Your task to perform on an android device: Search for razer kraken on target, select the first entry, add it to the cart, then select checkout. Image 0: 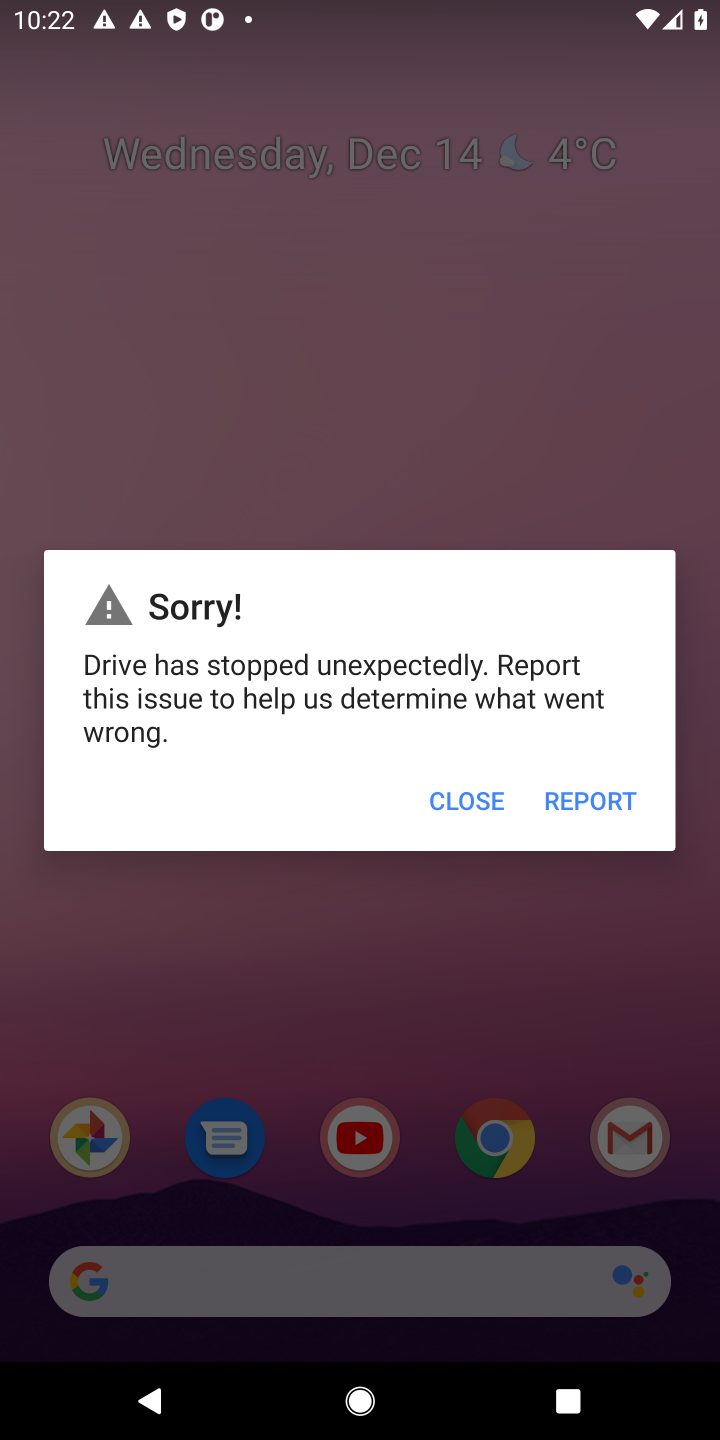
Step 0: press home button
Your task to perform on an android device: Search for razer kraken on target, select the first entry, add it to the cart, then select checkout. Image 1: 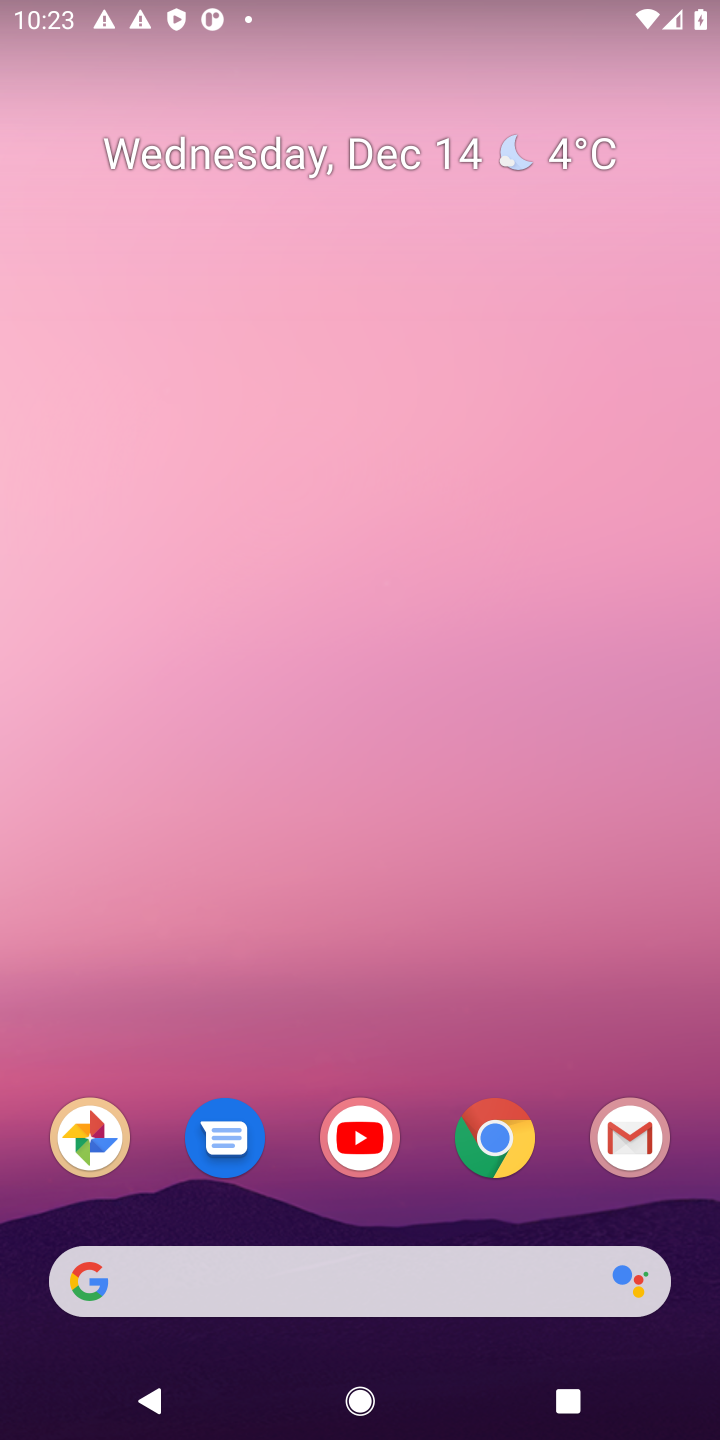
Step 1: click (506, 1137)
Your task to perform on an android device: Search for razer kraken on target, select the first entry, add it to the cart, then select checkout. Image 2: 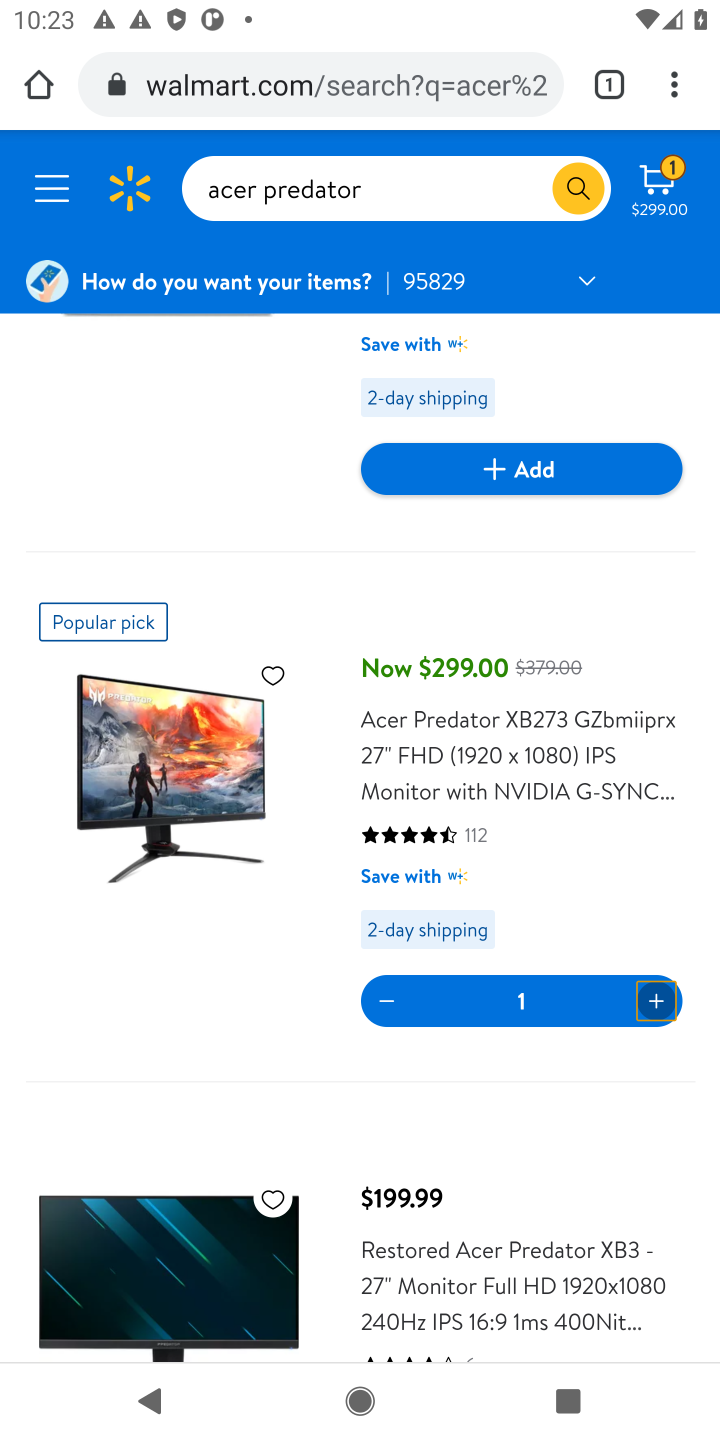
Step 2: click (341, 93)
Your task to perform on an android device: Search for razer kraken on target, select the first entry, add it to the cart, then select checkout. Image 3: 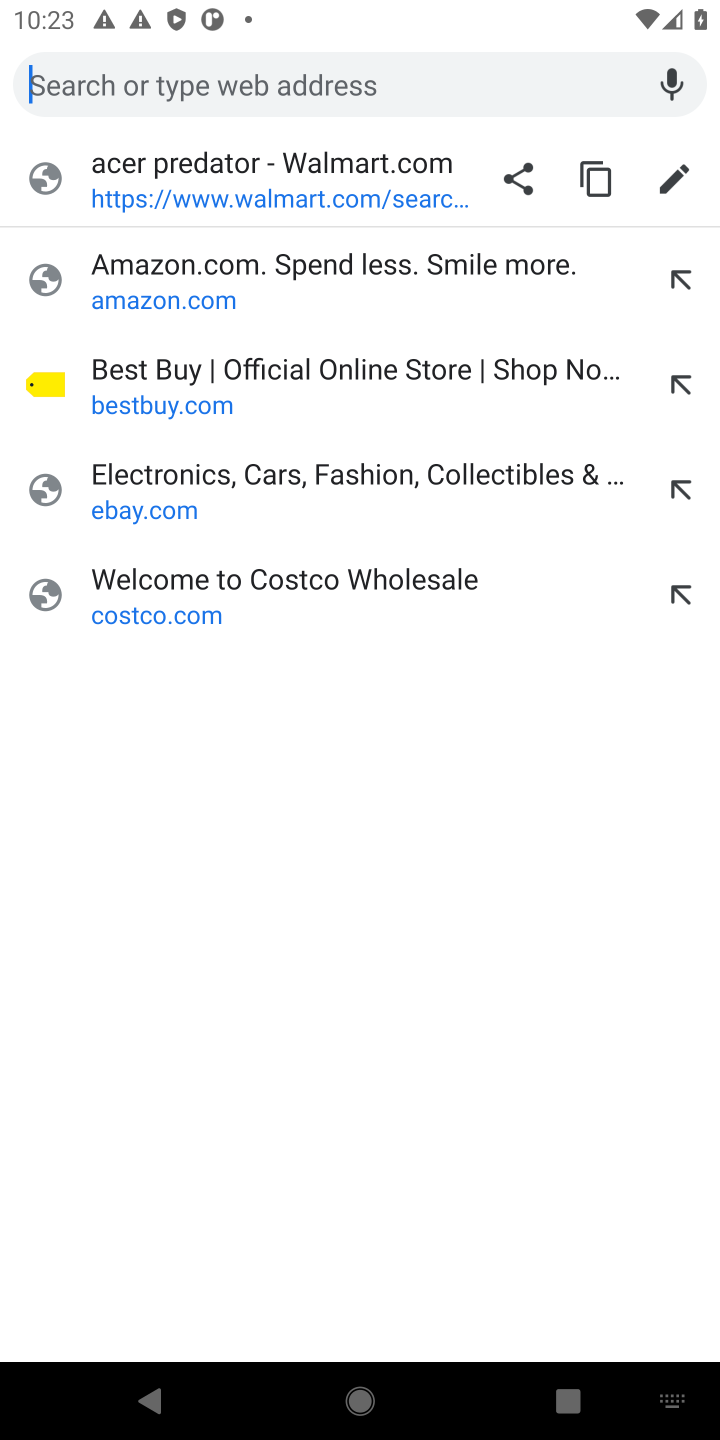
Step 3: type "target.com"
Your task to perform on an android device: Search for razer kraken on target, select the first entry, add it to the cart, then select checkout. Image 4: 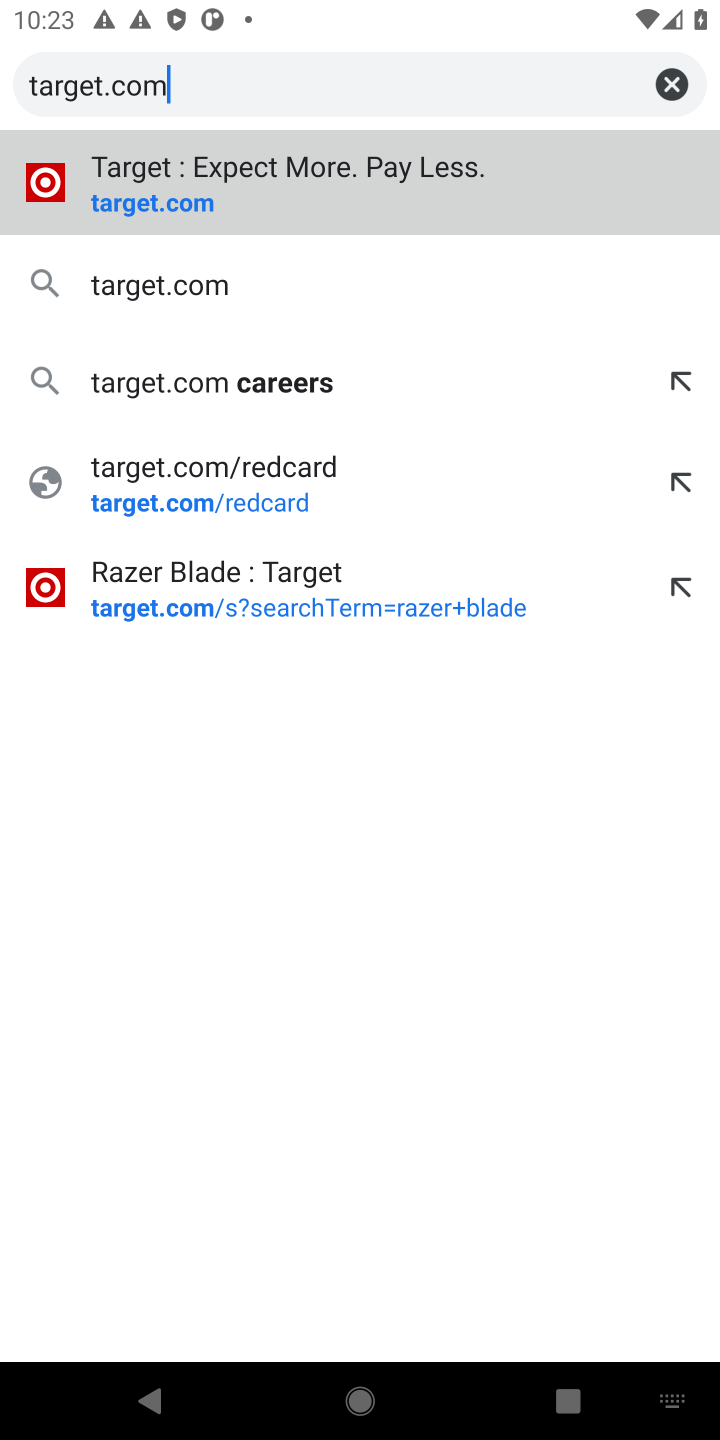
Step 4: click (174, 186)
Your task to perform on an android device: Search for razer kraken on target, select the first entry, add it to the cart, then select checkout. Image 5: 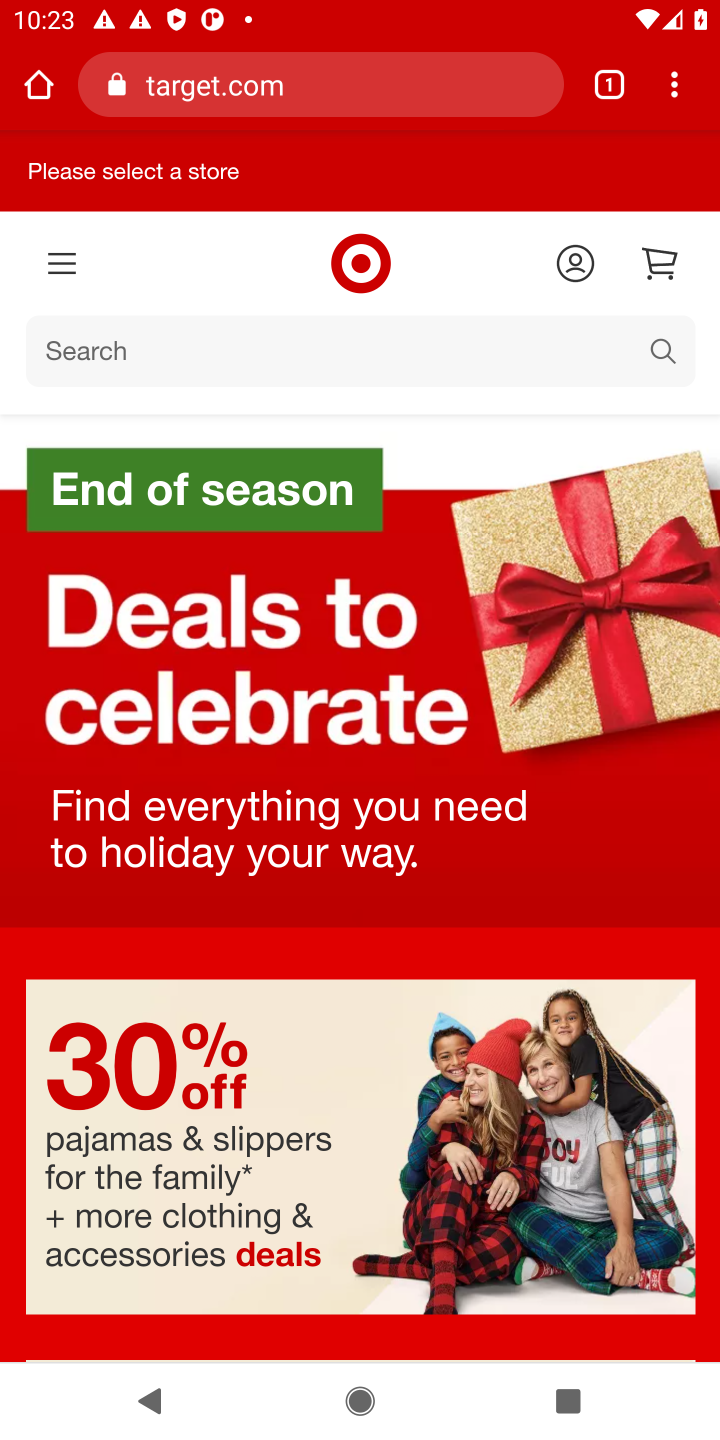
Step 5: click (126, 355)
Your task to perform on an android device: Search for razer kraken on target, select the first entry, add it to the cart, then select checkout. Image 6: 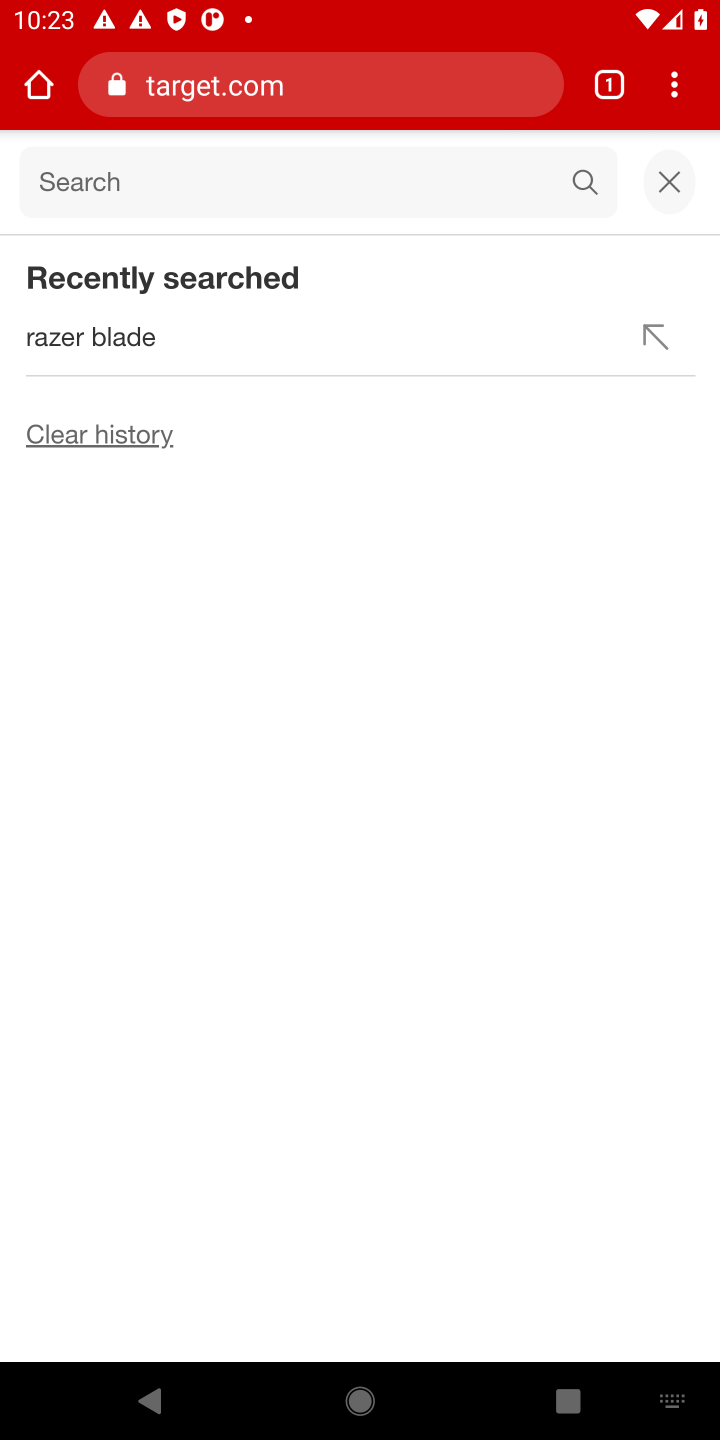
Step 6: type "razer kraken "
Your task to perform on an android device: Search for razer kraken on target, select the first entry, add it to the cart, then select checkout. Image 7: 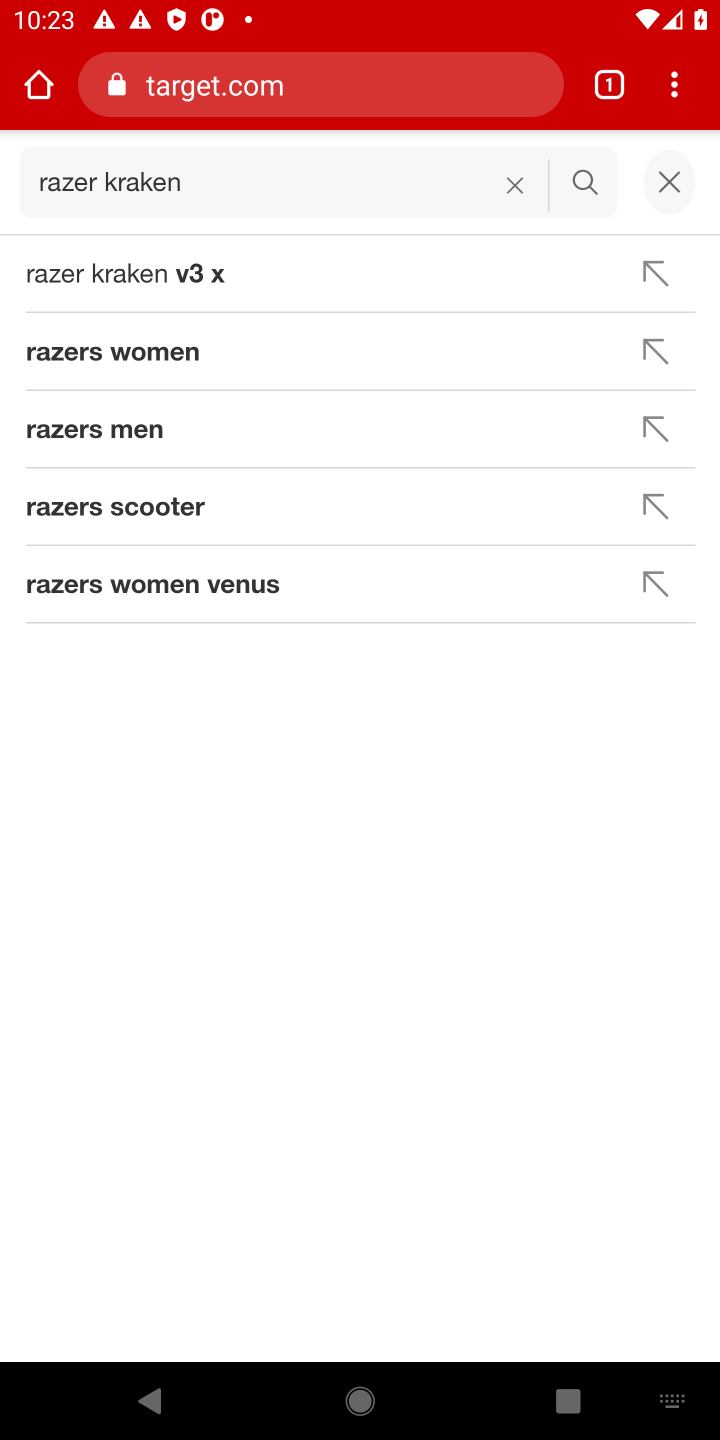
Step 7: click (579, 176)
Your task to perform on an android device: Search for razer kraken on target, select the first entry, add it to the cart, then select checkout. Image 8: 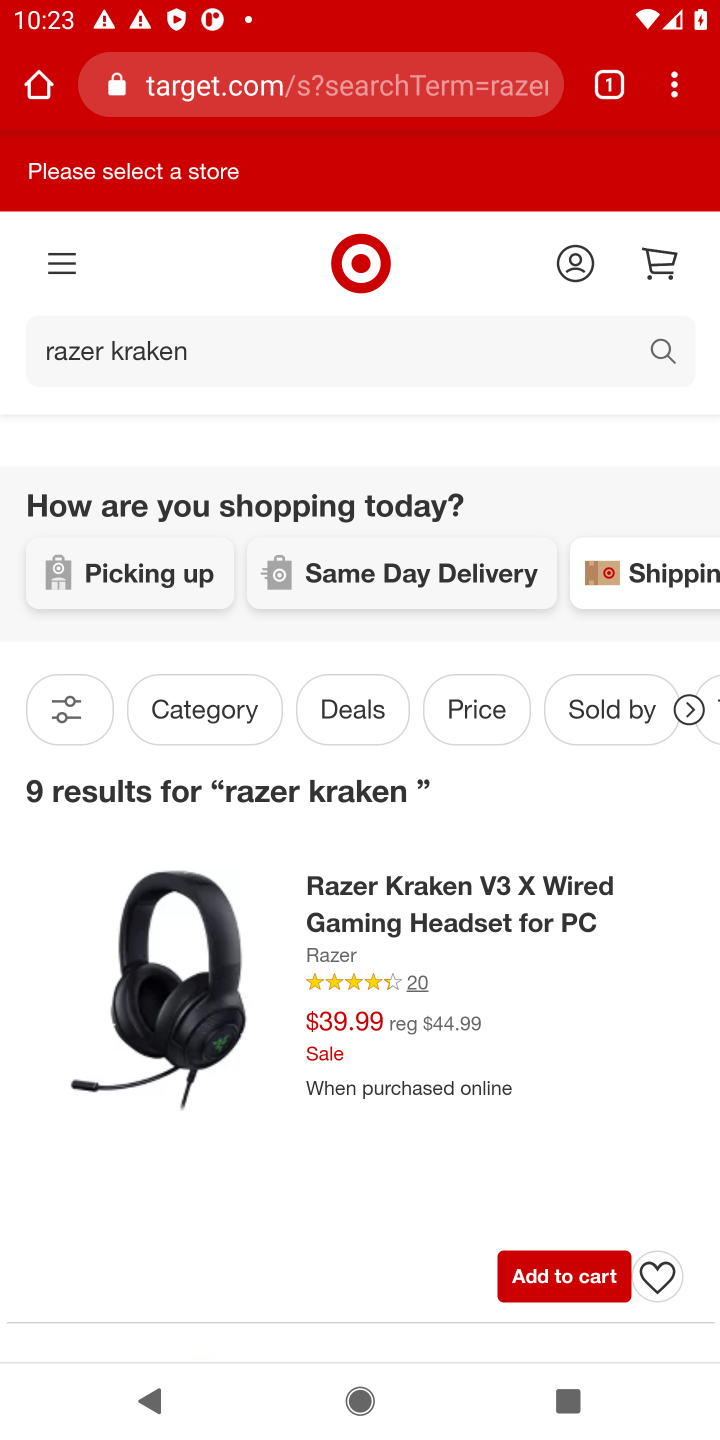
Step 8: click (550, 1283)
Your task to perform on an android device: Search for razer kraken on target, select the first entry, add it to the cart, then select checkout. Image 9: 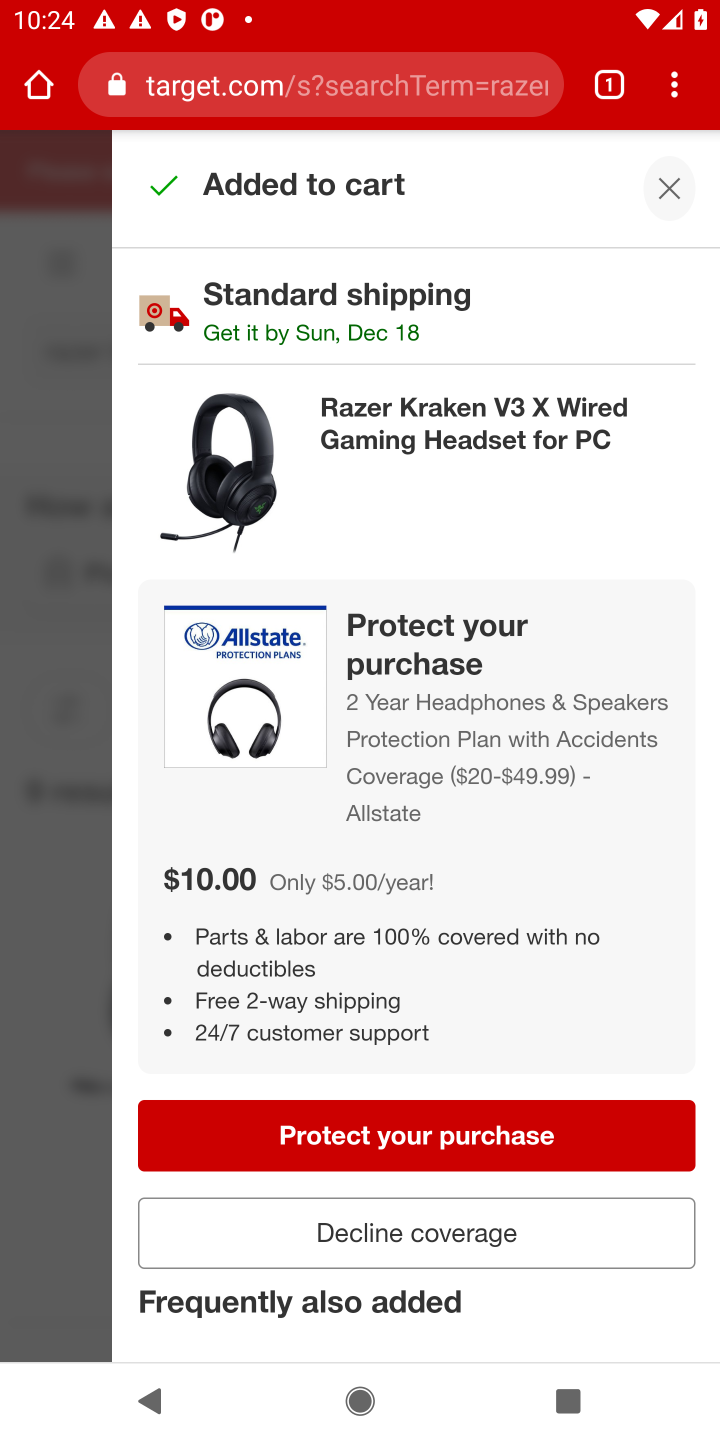
Step 9: click (664, 196)
Your task to perform on an android device: Search for razer kraken on target, select the first entry, add it to the cart, then select checkout. Image 10: 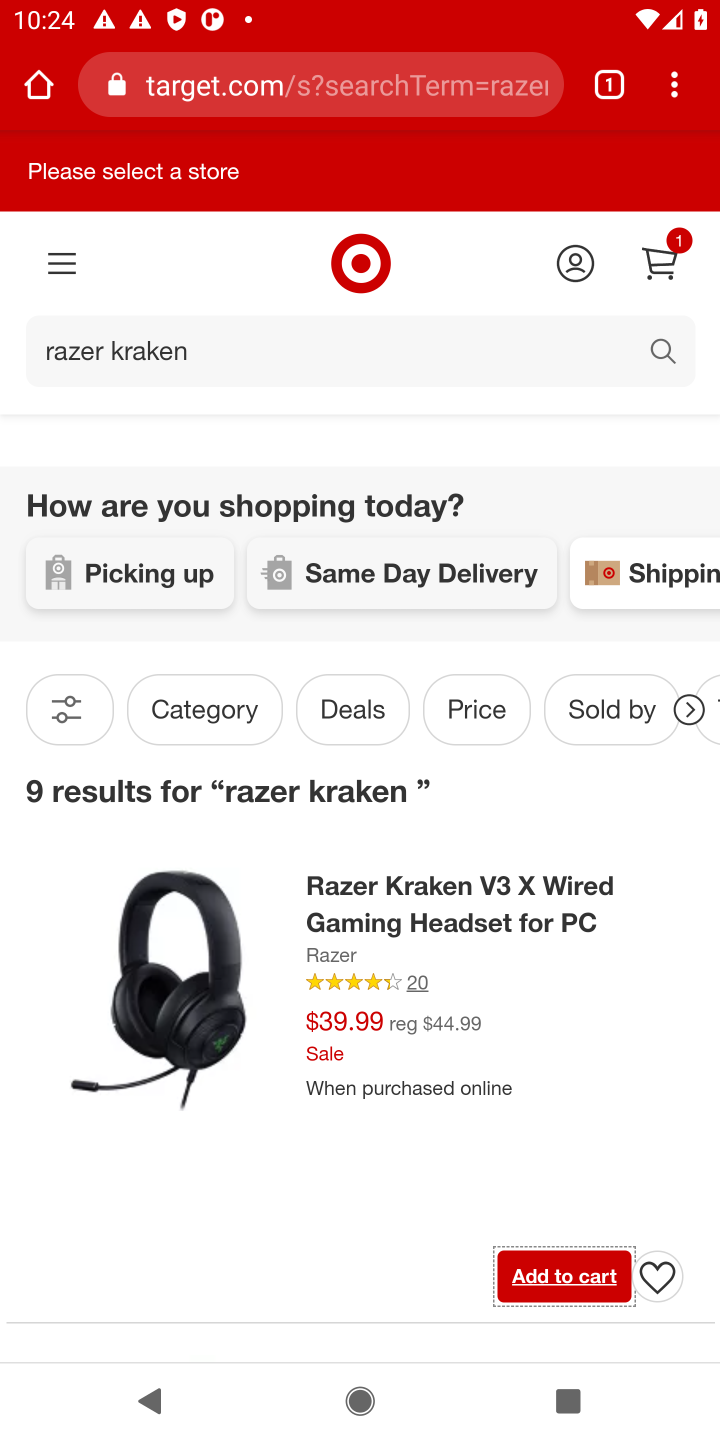
Step 10: click (672, 246)
Your task to perform on an android device: Search for razer kraken on target, select the first entry, add it to the cart, then select checkout. Image 11: 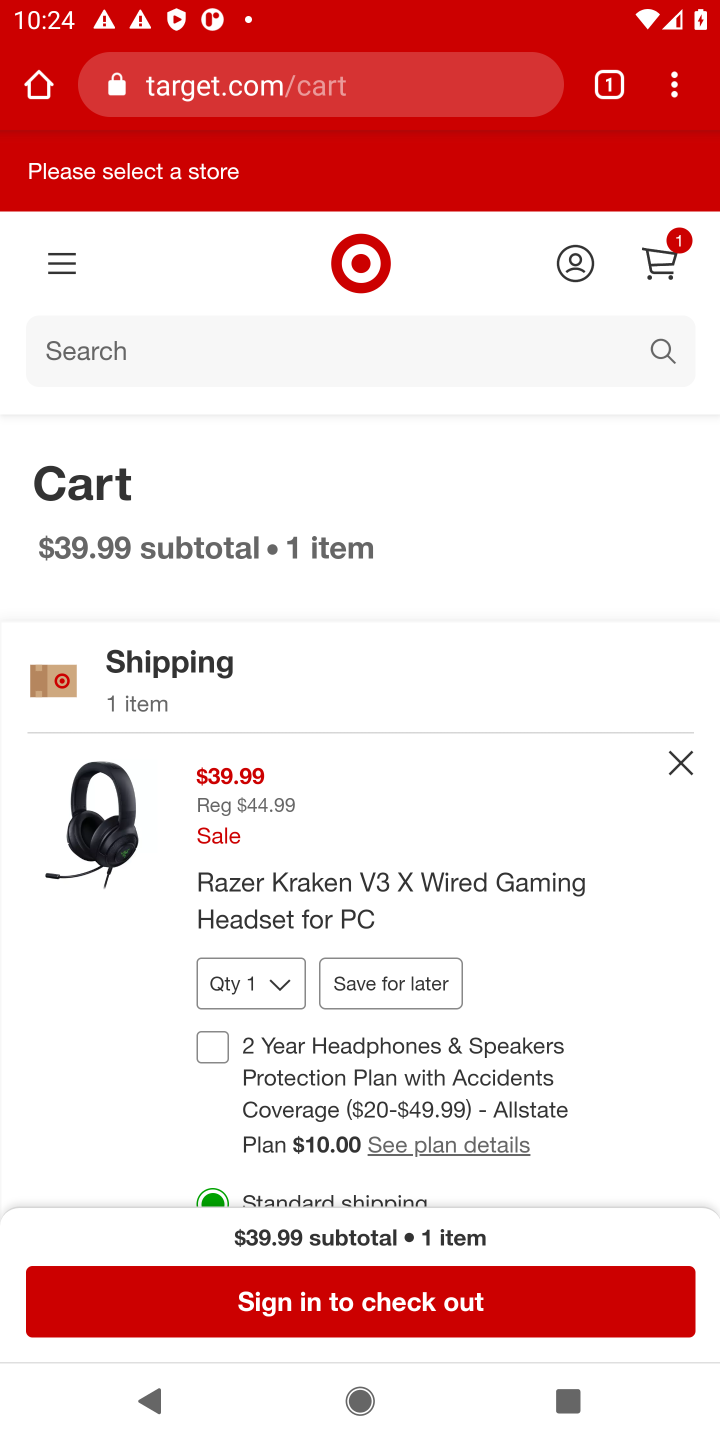
Step 11: click (323, 1294)
Your task to perform on an android device: Search for razer kraken on target, select the first entry, add it to the cart, then select checkout. Image 12: 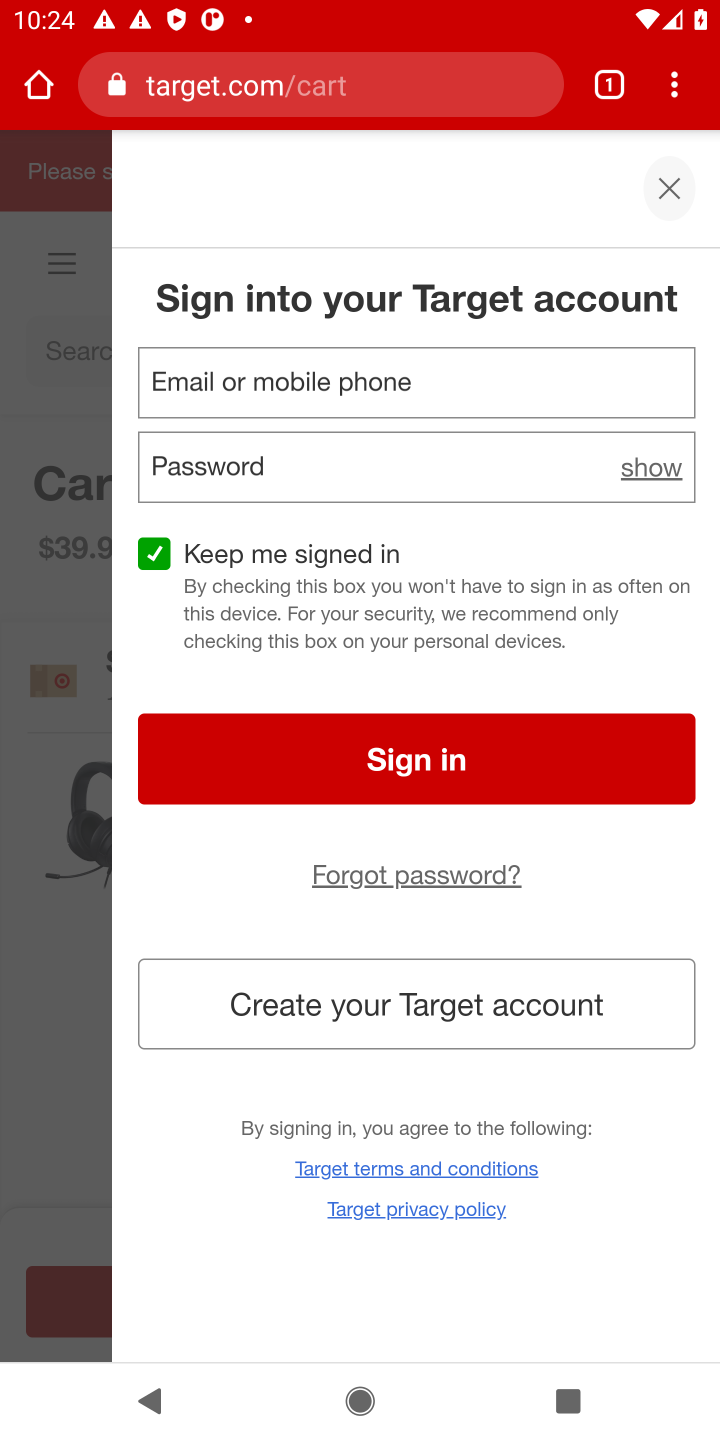
Step 12: task complete